Your task to perform on an android device: What's the weather today? Image 0: 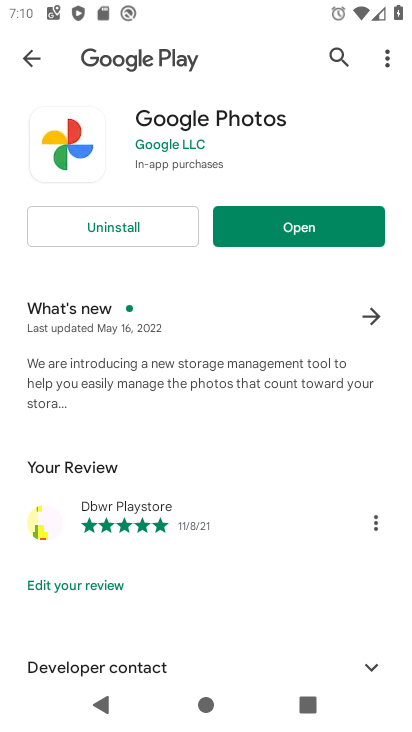
Step 0: press home button
Your task to perform on an android device: What's the weather today? Image 1: 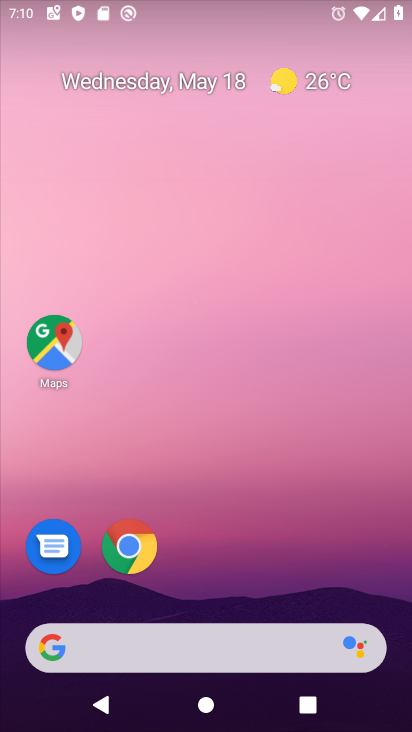
Step 1: drag from (364, 616) to (269, 38)
Your task to perform on an android device: What's the weather today? Image 2: 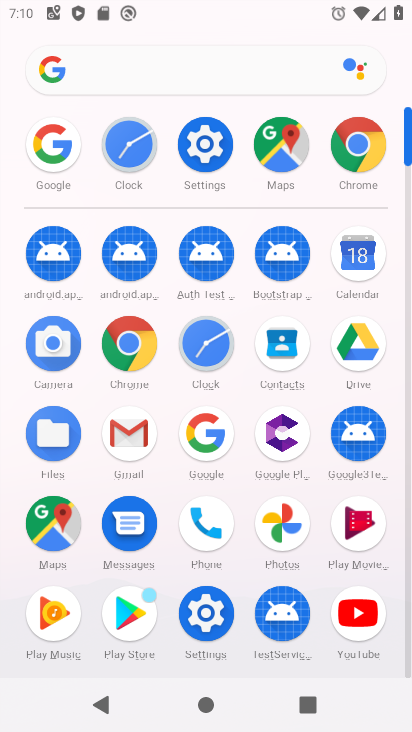
Step 2: click (220, 439)
Your task to perform on an android device: What's the weather today? Image 3: 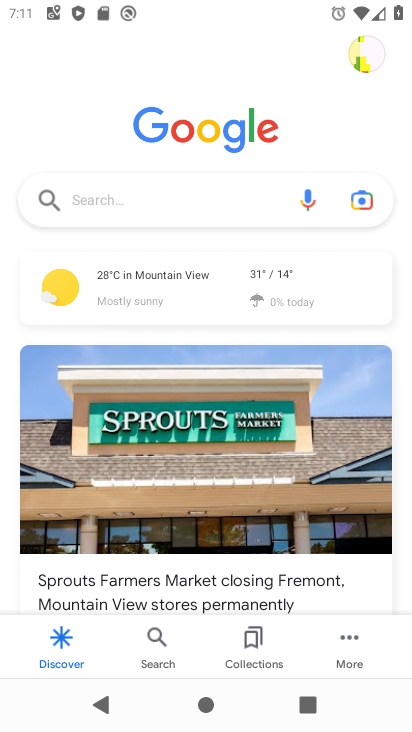
Step 3: click (180, 188)
Your task to perform on an android device: What's the weather today? Image 4: 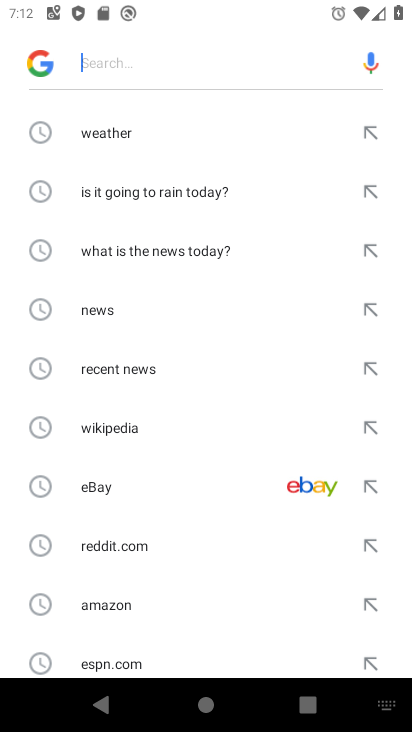
Step 4: drag from (174, 546) to (222, 227)
Your task to perform on an android device: What's the weather today? Image 5: 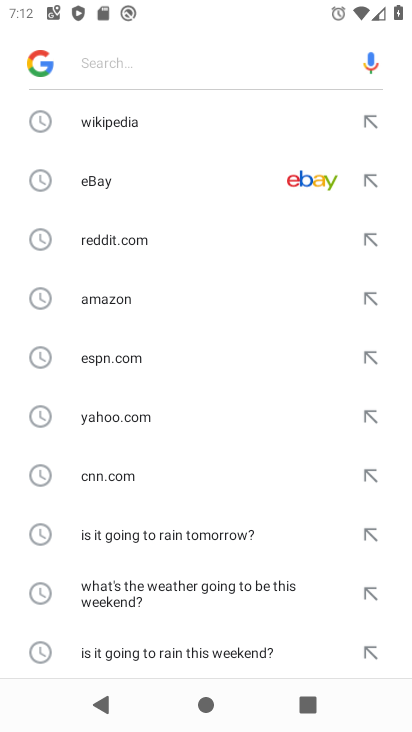
Step 5: drag from (236, 612) to (247, 272)
Your task to perform on an android device: What's the weather today? Image 6: 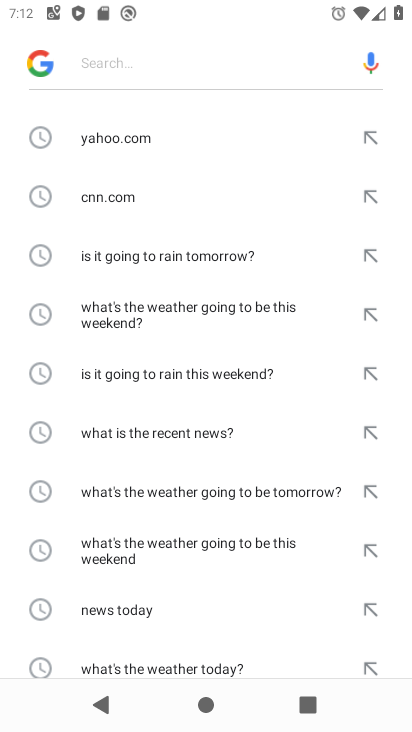
Step 6: drag from (196, 594) to (228, 381)
Your task to perform on an android device: What's the weather today? Image 7: 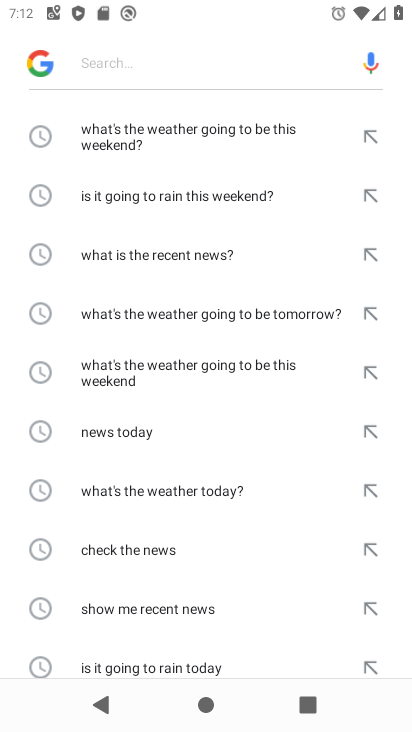
Step 7: click (191, 482)
Your task to perform on an android device: What's the weather today? Image 8: 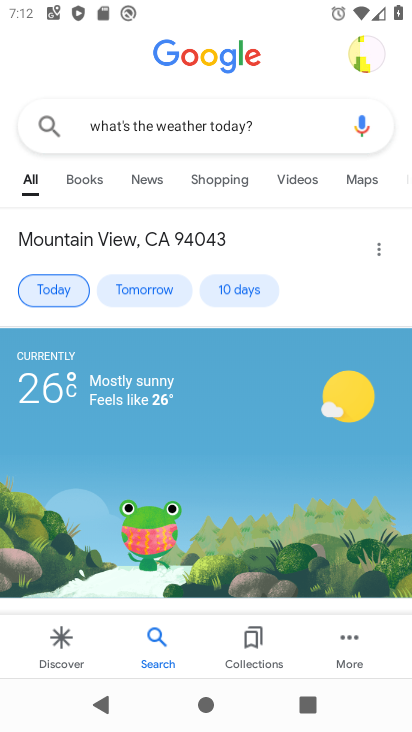
Step 8: task complete